Your task to perform on an android device: turn off location history Image 0: 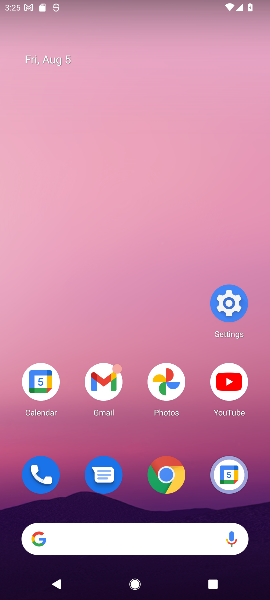
Step 0: click (221, 312)
Your task to perform on an android device: turn off location history Image 1: 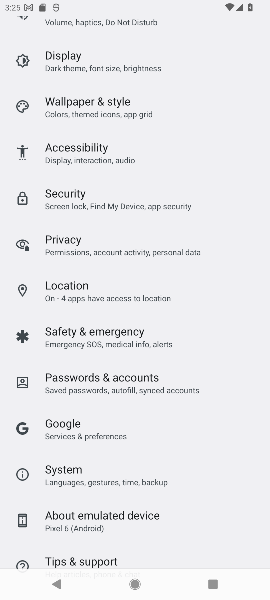
Step 1: click (83, 296)
Your task to perform on an android device: turn off location history Image 2: 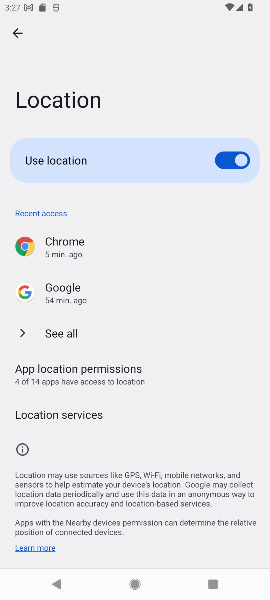
Step 2: task complete